Your task to perform on an android device: Go to Maps Image 0: 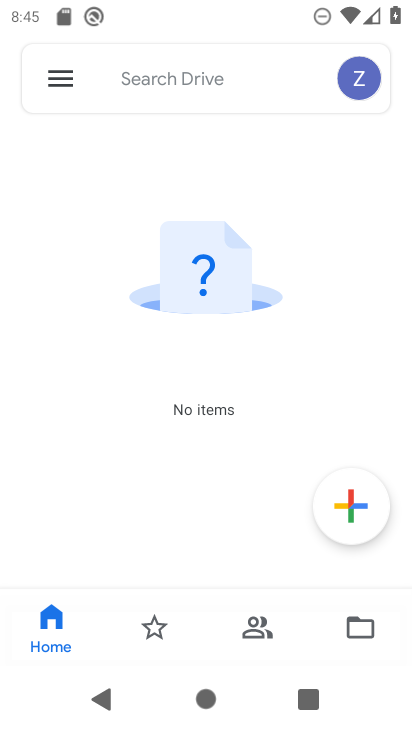
Step 0: press home button
Your task to perform on an android device: Go to Maps Image 1: 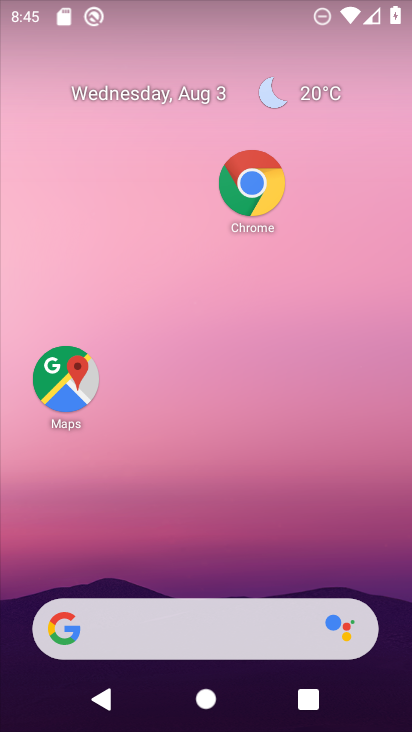
Step 1: click (67, 392)
Your task to perform on an android device: Go to Maps Image 2: 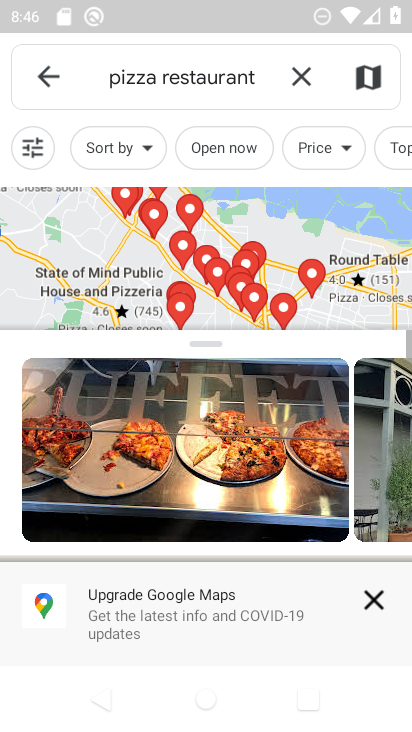
Step 2: task complete